Your task to perform on an android device: change the clock style Image 0: 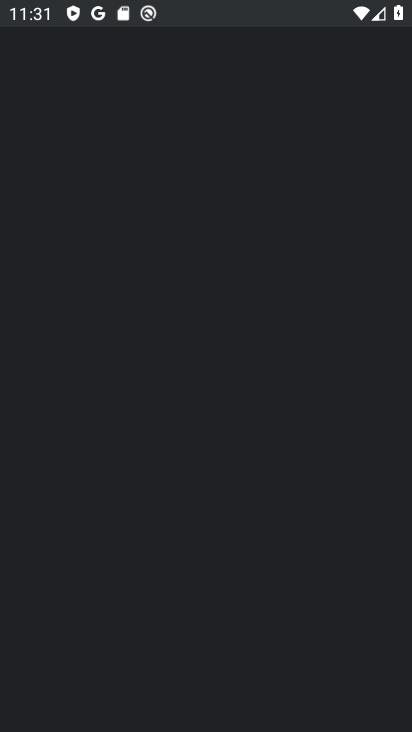
Step 0: click (168, 109)
Your task to perform on an android device: change the clock style Image 1: 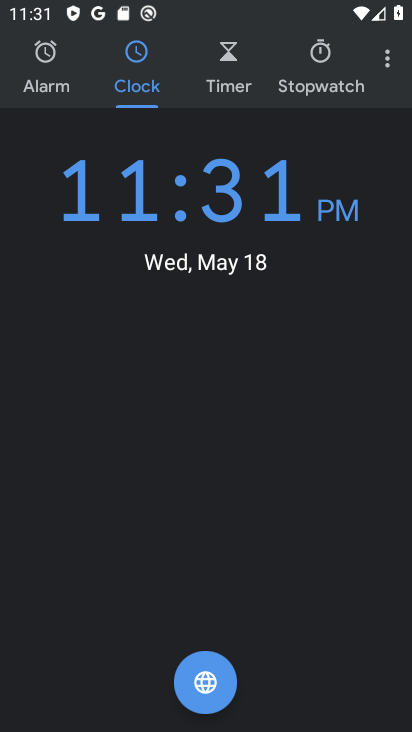
Step 1: click (240, 142)
Your task to perform on an android device: change the clock style Image 2: 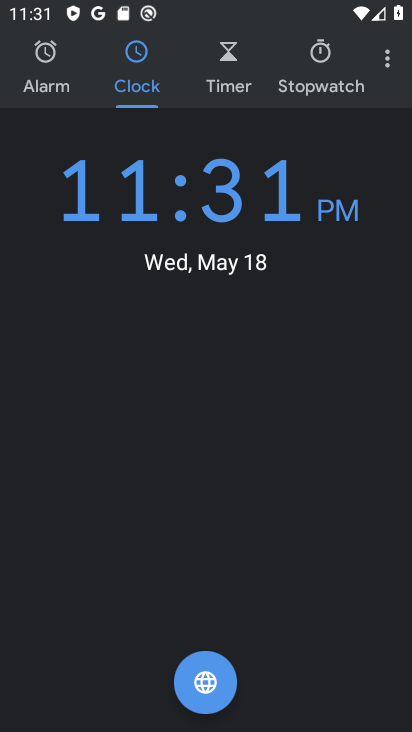
Step 2: drag from (292, 452) to (225, 191)
Your task to perform on an android device: change the clock style Image 3: 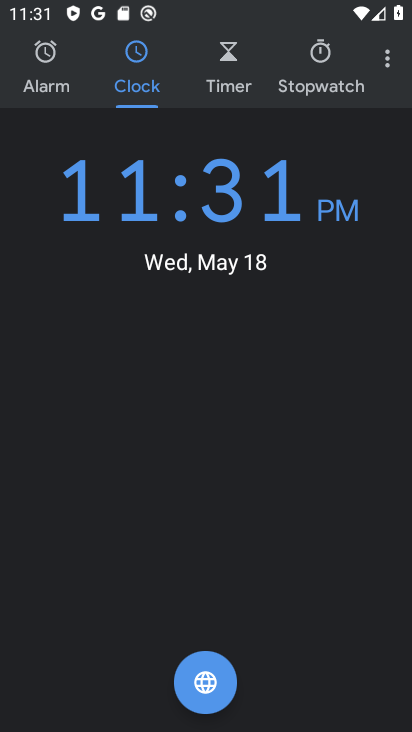
Step 3: drag from (271, 596) to (233, 125)
Your task to perform on an android device: change the clock style Image 4: 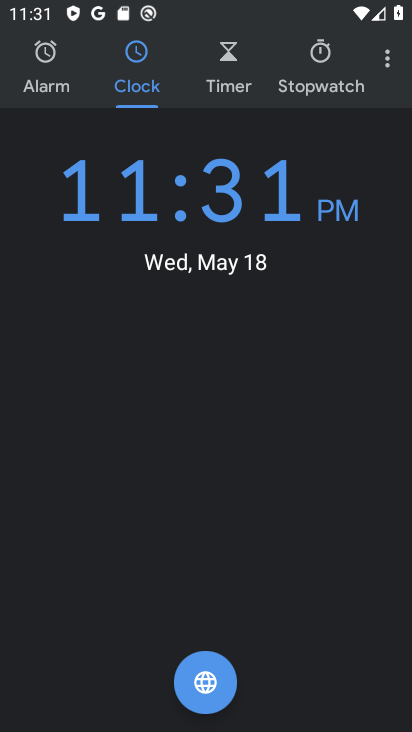
Step 4: drag from (246, 202) to (293, 20)
Your task to perform on an android device: change the clock style Image 5: 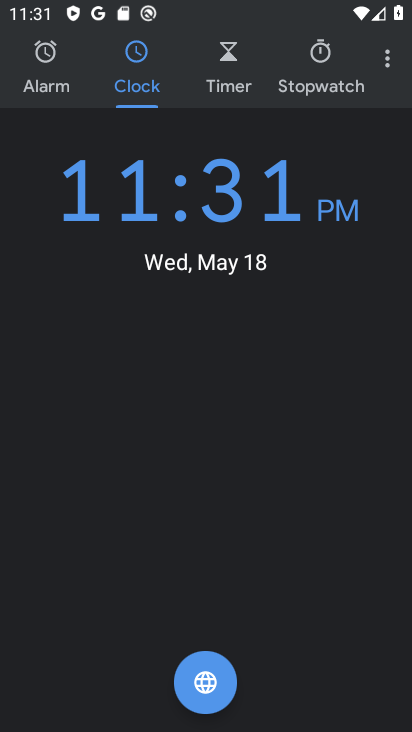
Step 5: click (256, 87)
Your task to perform on an android device: change the clock style Image 6: 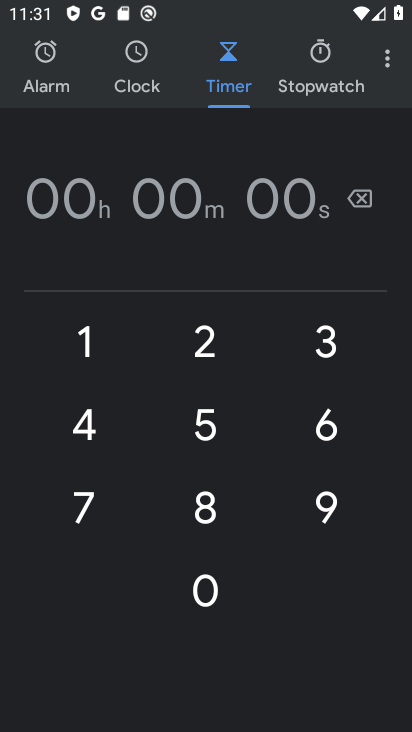
Step 6: click (264, 5)
Your task to perform on an android device: change the clock style Image 7: 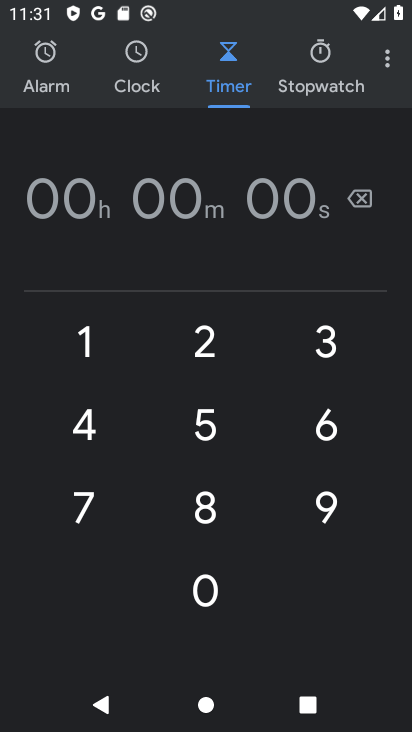
Step 7: drag from (232, 498) to (134, 57)
Your task to perform on an android device: change the clock style Image 8: 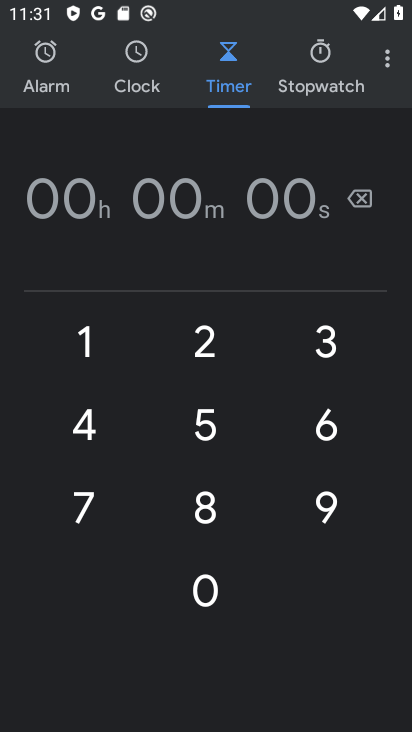
Step 8: click (377, 67)
Your task to perform on an android device: change the clock style Image 9: 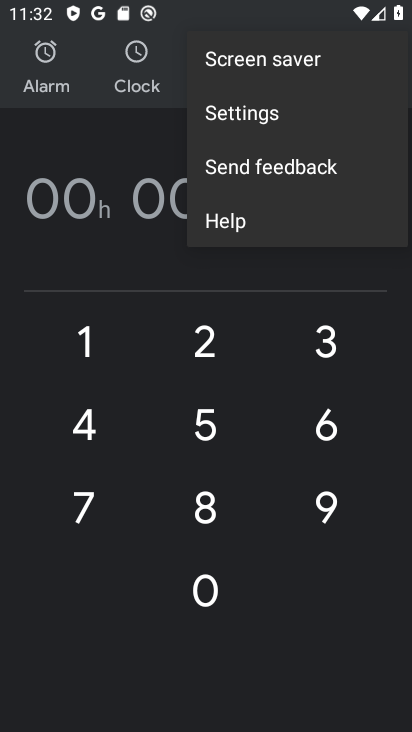
Step 9: task complete